Your task to perform on an android device: snooze an email in the gmail app Image 0: 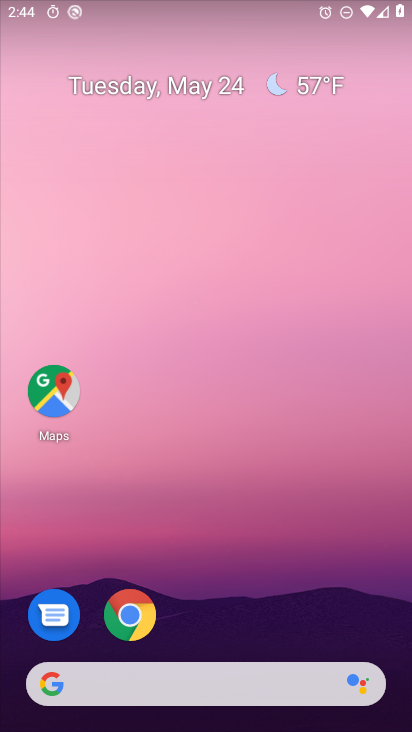
Step 0: drag from (208, 683) to (152, 281)
Your task to perform on an android device: snooze an email in the gmail app Image 1: 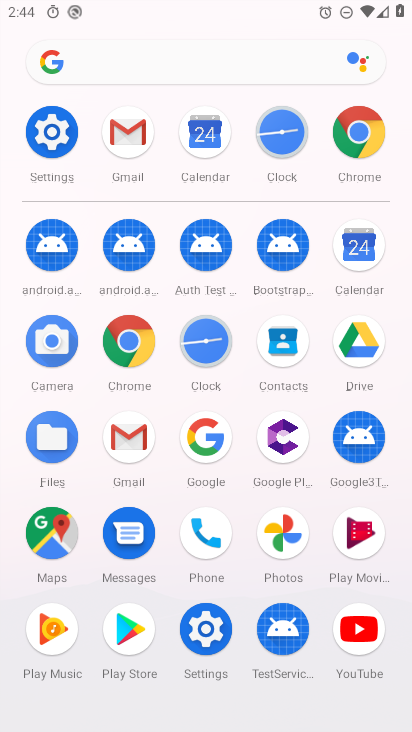
Step 1: click (135, 446)
Your task to perform on an android device: snooze an email in the gmail app Image 2: 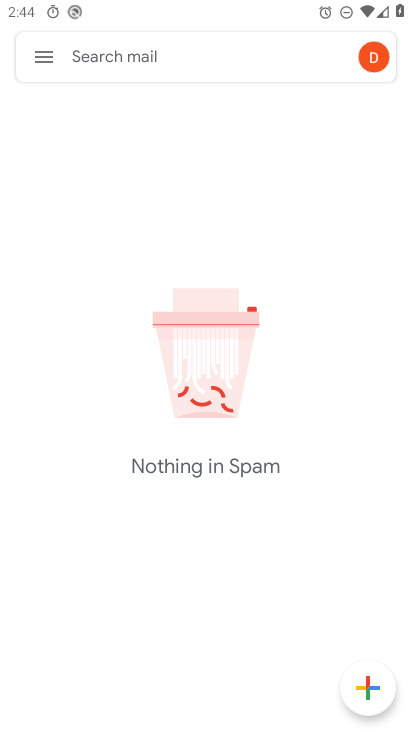
Step 2: click (27, 62)
Your task to perform on an android device: snooze an email in the gmail app Image 3: 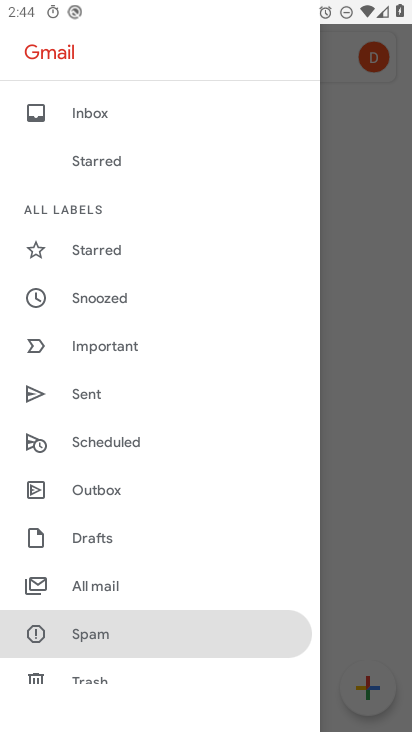
Step 3: click (128, 298)
Your task to perform on an android device: snooze an email in the gmail app Image 4: 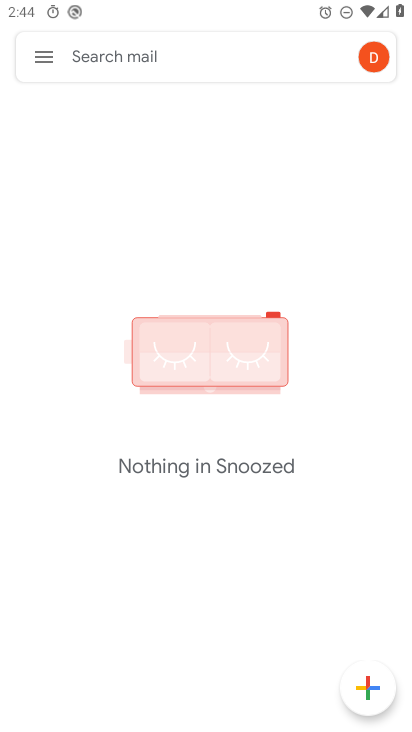
Step 4: task complete